Your task to perform on an android device: toggle notification dots Image 0: 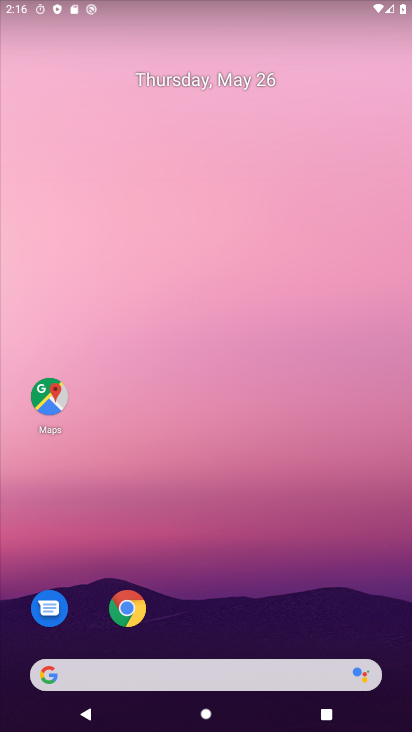
Step 0: drag from (270, 710) to (184, 195)
Your task to perform on an android device: toggle notification dots Image 1: 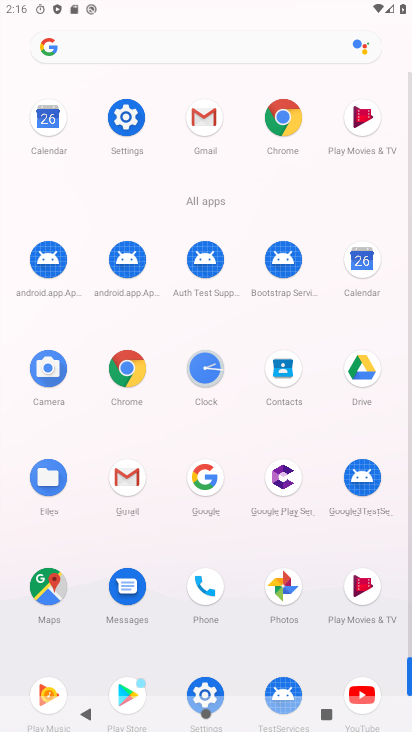
Step 1: click (134, 118)
Your task to perform on an android device: toggle notification dots Image 2: 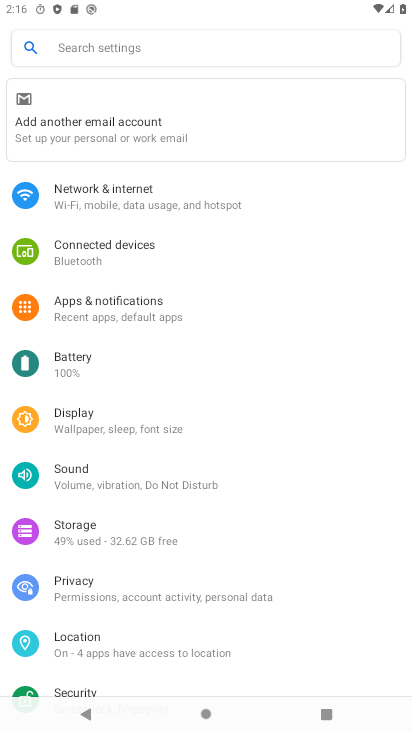
Step 2: click (80, 308)
Your task to perform on an android device: toggle notification dots Image 3: 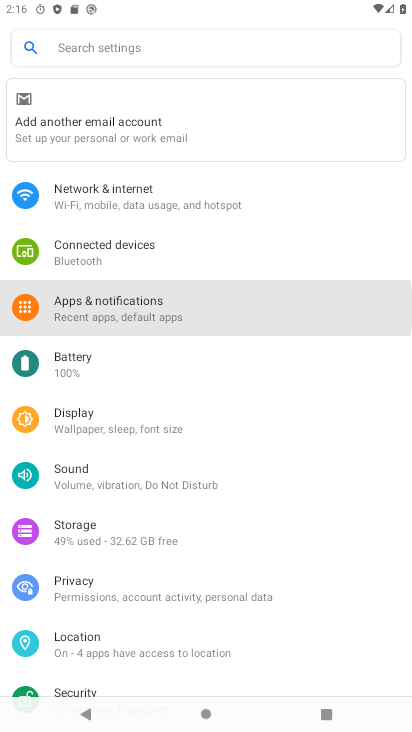
Step 3: click (80, 308)
Your task to perform on an android device: toggle notification dots Image 4: 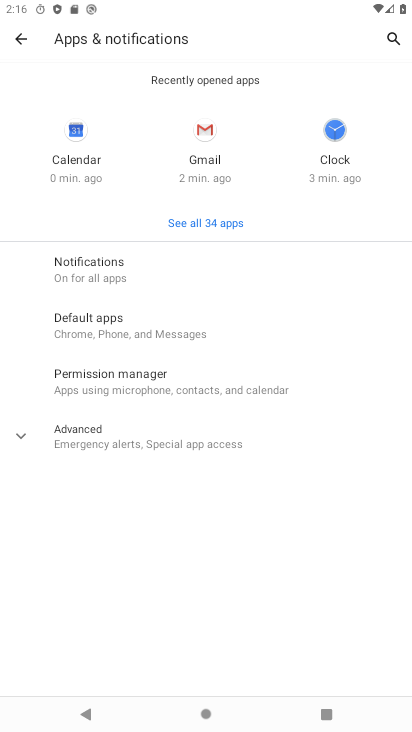
Step 4: click (78, 260)
Your task to perform on an android device: toggle notification dots Image 5: 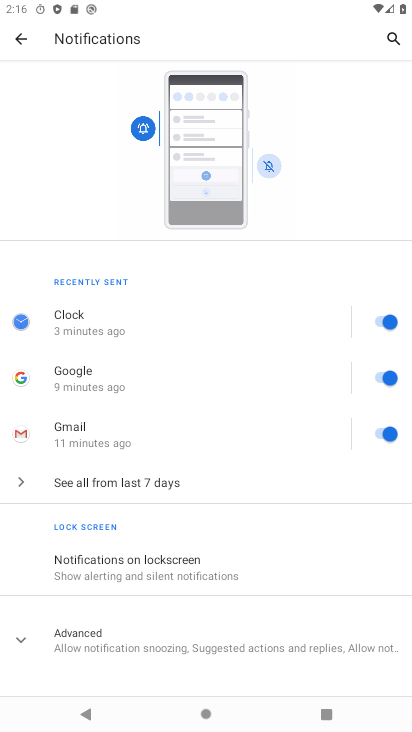
Step 5: drag from (248, 407) to (231, 108)
Your task to perform on an android device: toggle notification dots Image 6: 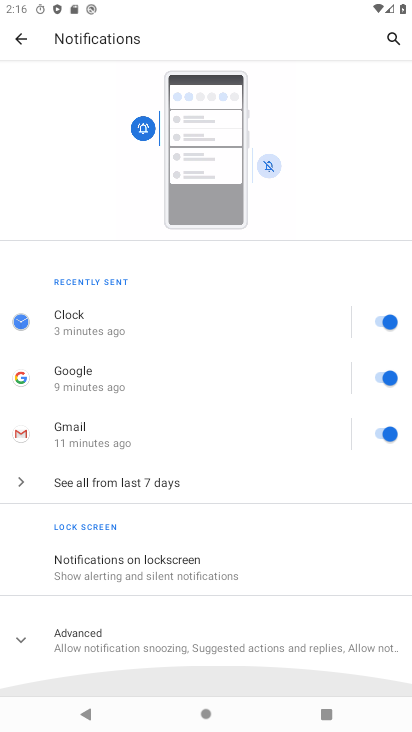
Step 6: drag from (241, 370) to (243, 191)
Your task to perform on an android device: toggle notification dots Image 7: 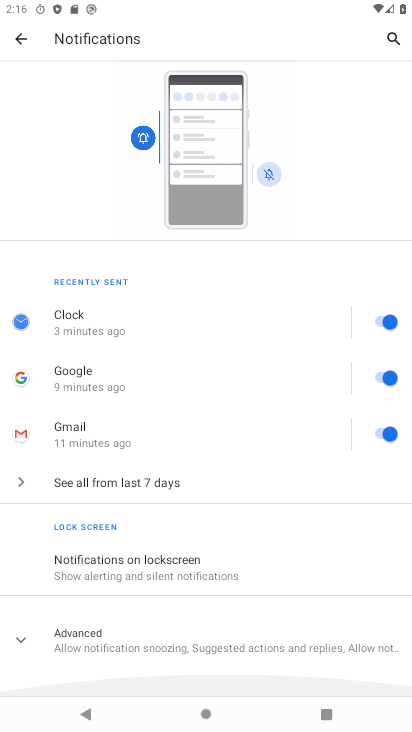
Step 7: drag from (192, 449) to (168, 170)
Your task to perform on an android device: toggle notification dots Image 8: 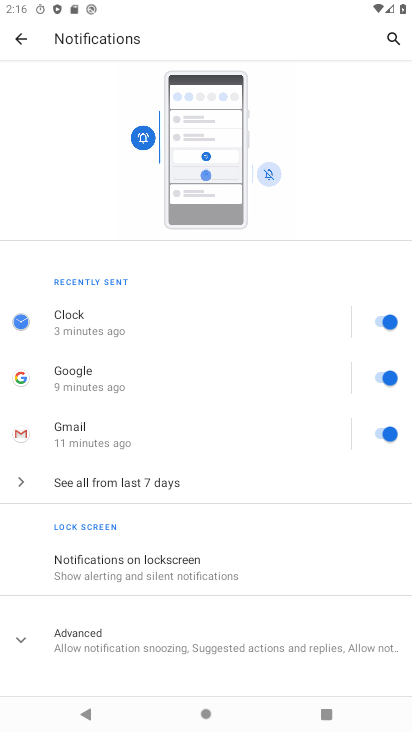
Step 8: click (77, 641)
Your task to perform on an android device: toggle notification dots Image 9: 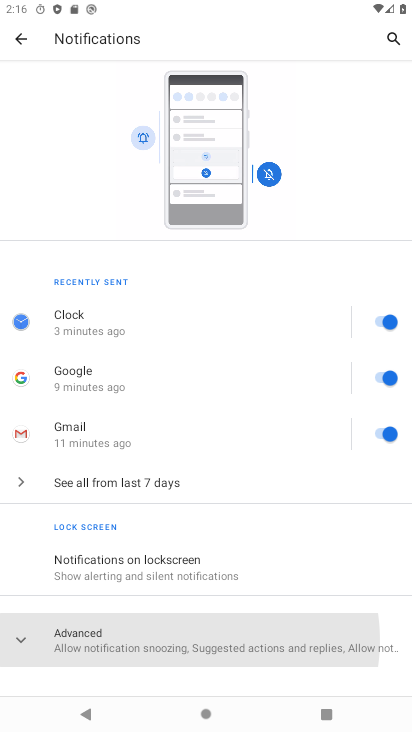
Step 9: click (78, 640)
Your task to perform on an android device: toggle notification dots Image 10: 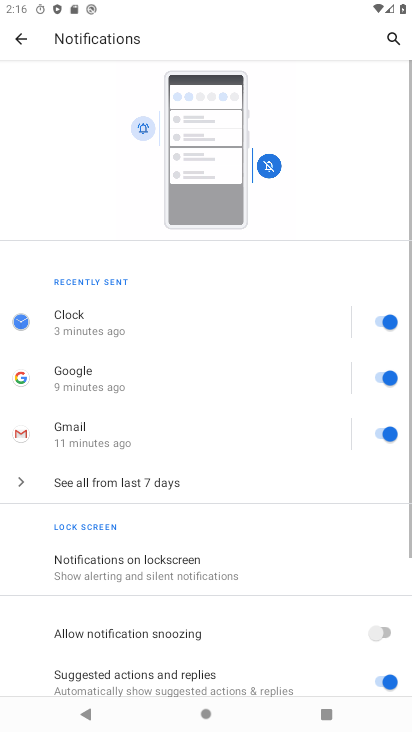
Step 10: drag from (230, 565) to (211, 114)
Your task to perform on an android device: toggle notification dots Image 11: 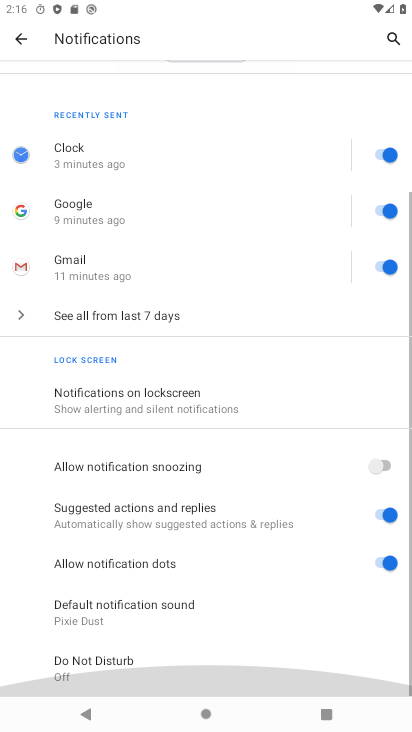
Step 11: drag from (234, 406) to (234, 82)
Your task to perform on an android device: toggle notification dots Image 12: 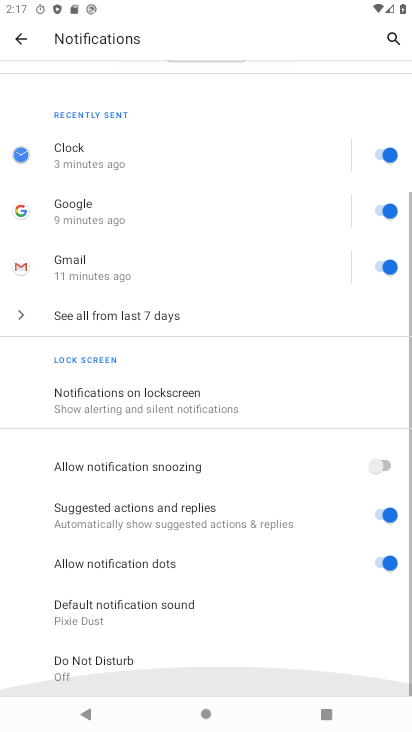
Step 12: drag from (285, 389) to (285, 107)
Your task to perform on an android device: toggle notification dots Image 13: 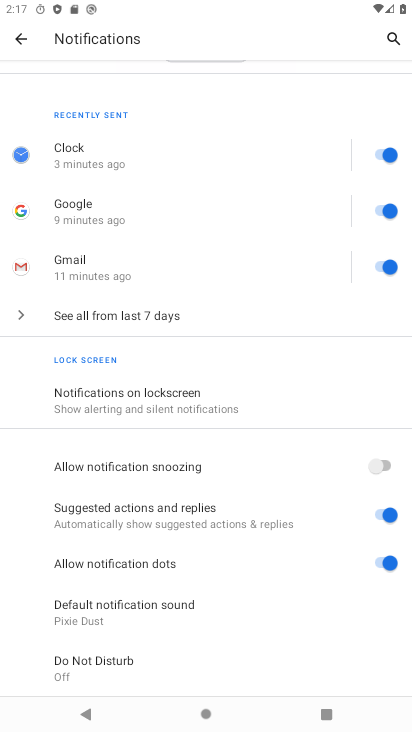
Step 13: click (394, 563)
Your task to perform on an android device: toggle notification dots Image 14: 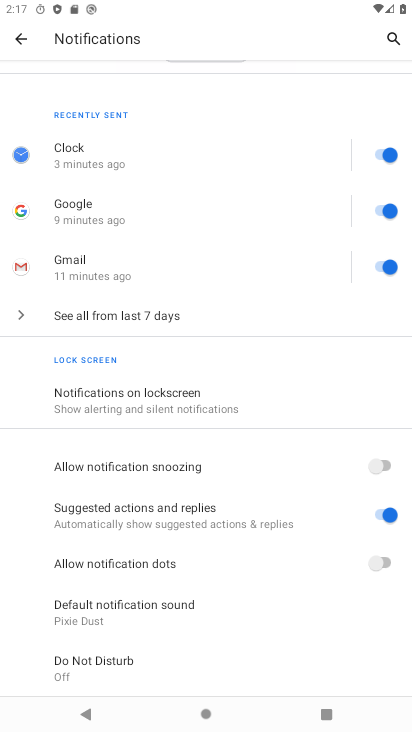
Step 14: task complete